Your task to perform on an android device: Go to privacy settings Image 0: 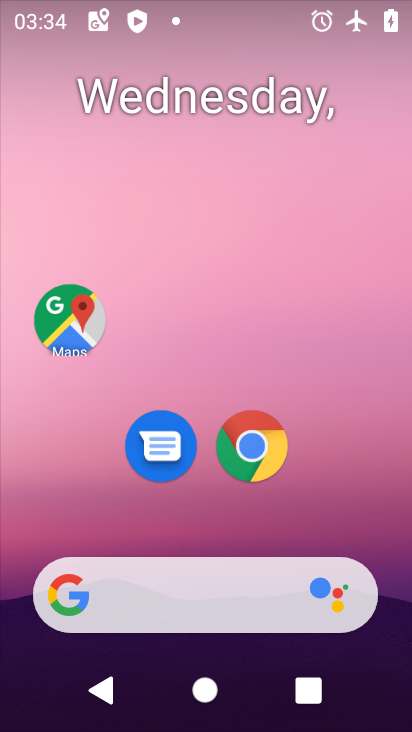
Step 0: drag from (230, 523) to (214, 224)
Your task to perform on an android device: Go to privacy settings Image 1: 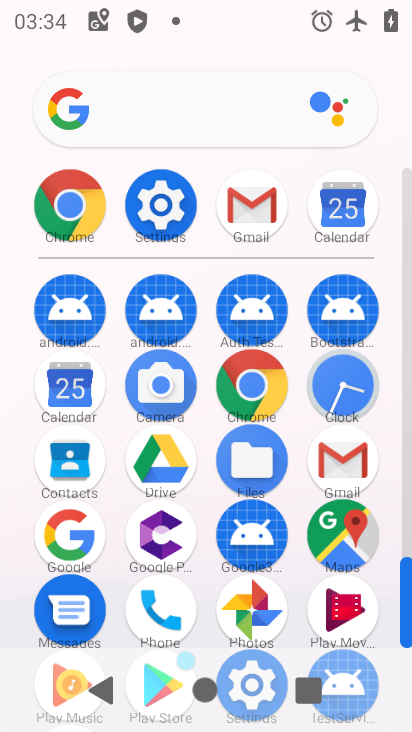
Step 1: click (167, 210)
Your task to perform on an android device: Go to privacy settings Image 2: 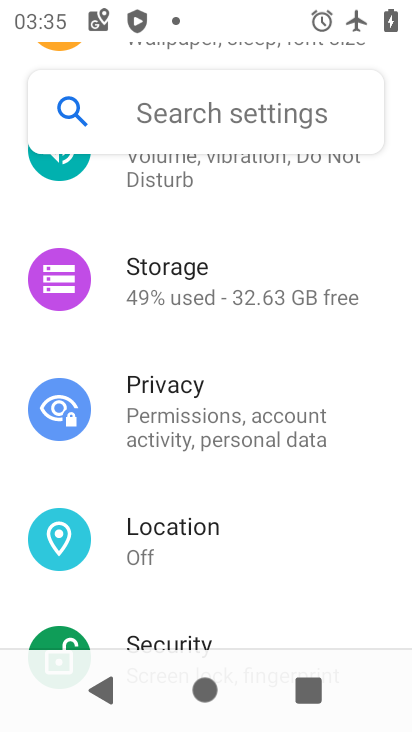
Step 2: click (262, 418)
Your task to perform on an android device: Go to privacy settings Image 3: 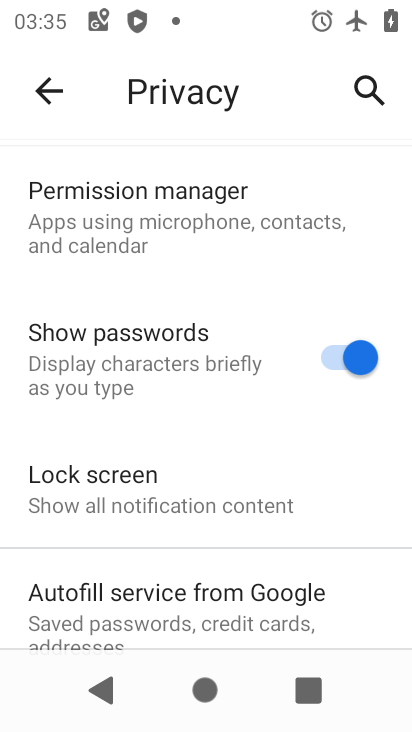
Step 3: task complete